Your task to perform on an android device: Open Google Image 0: 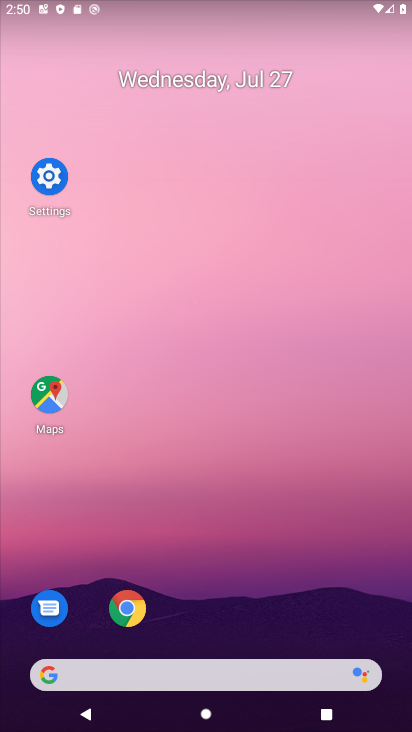
Step 0: drag from (186, 619) to (223, 153)
Your task to perform on an android device: Open Google Image 1: 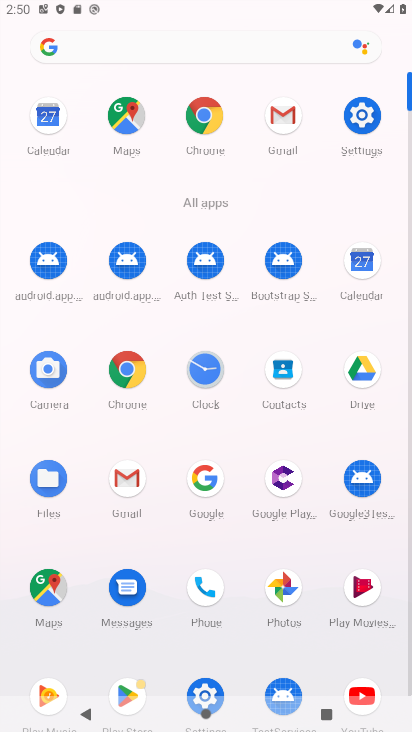
Step 1: click (194, 472)
Your task to perform on an android device: Open Google Image 2: 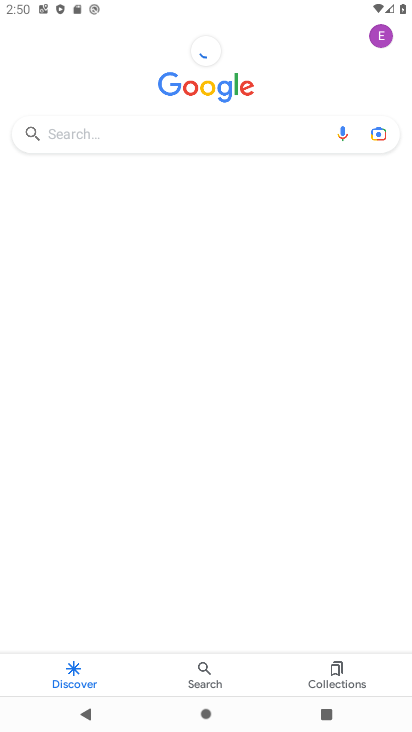
Step 2: task complete